Your task to perform on an android device: What's the weather going to be this weekend? Image 0: 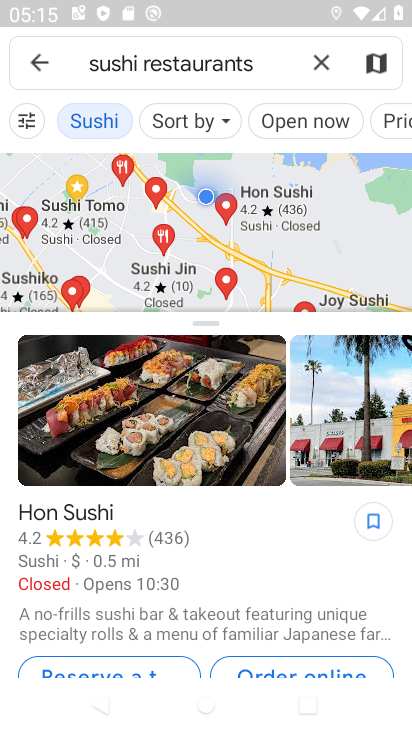
Step 0: press home button
Your task to perform on an android device: What's the weather going to be this weekend? Image 1: 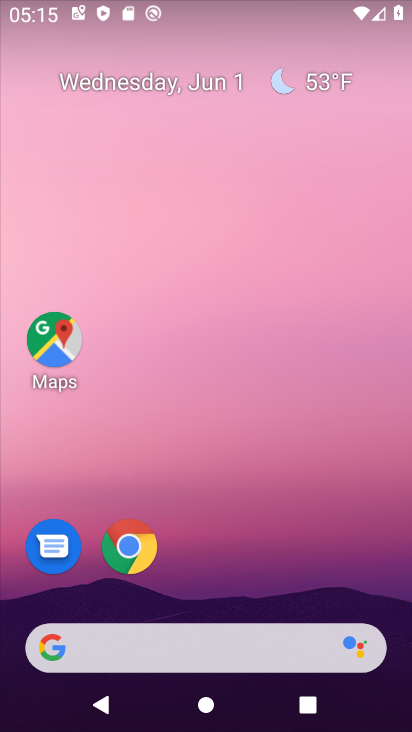
Step 1: click (241, 655)
Your task to perform on an android device: What's the weather going to be this weekend? Image 2: 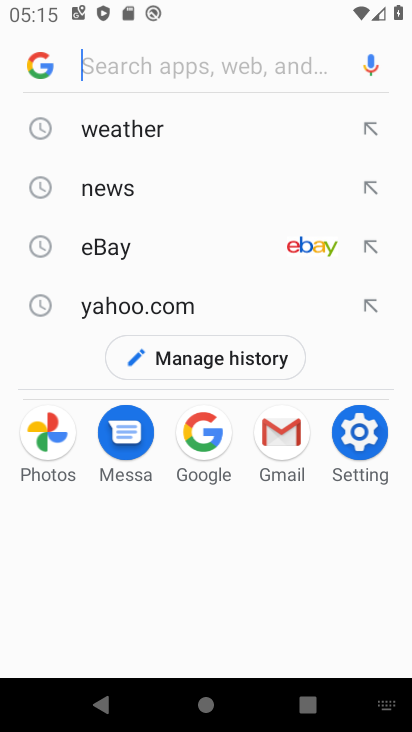
Step 2: click (119, 133)
Your task to perform on an android device: What's the weather going to be this weekend? Image 3: 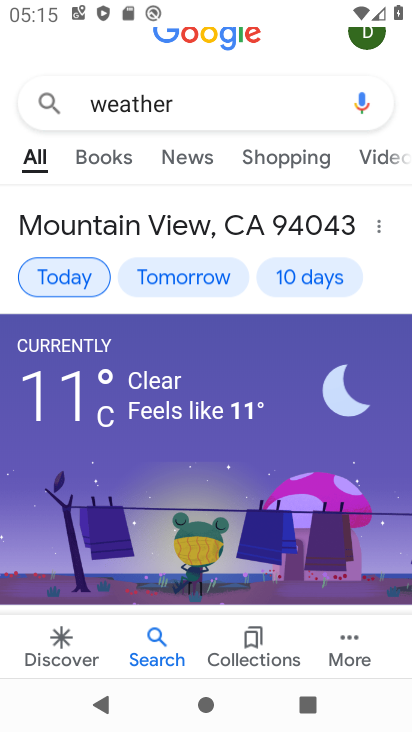
Step 3: click (291, 279)
Your task to perform on an android device: What's the weather going to be this weekend? Image 4: 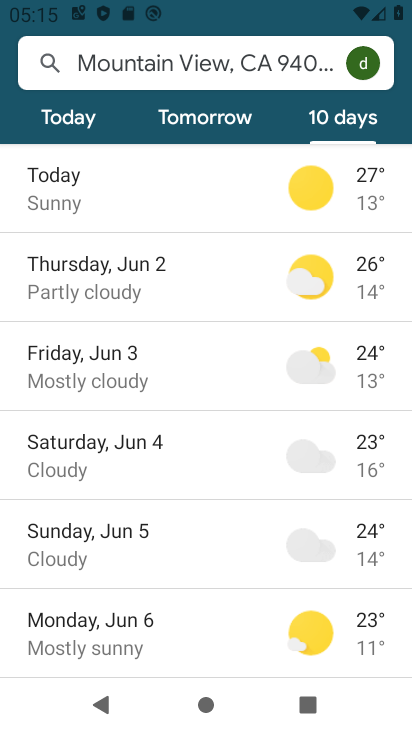
Step 4: task complete